Your task to perform on an android device: turn off airplane mode Image 0: 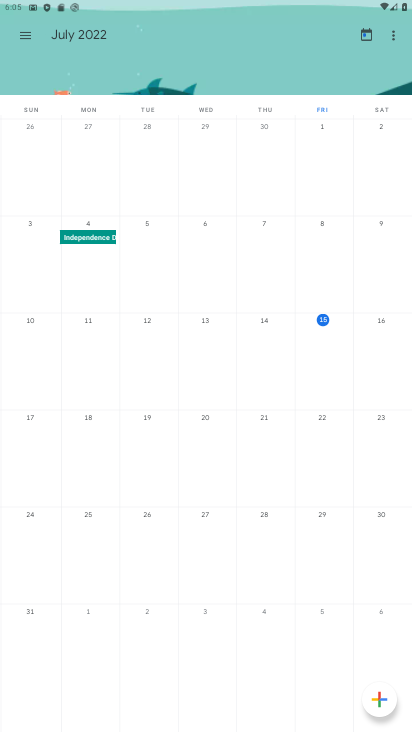
Step 0: press home button
Your task to perform on an android device: turn off airplane mode Image 1: 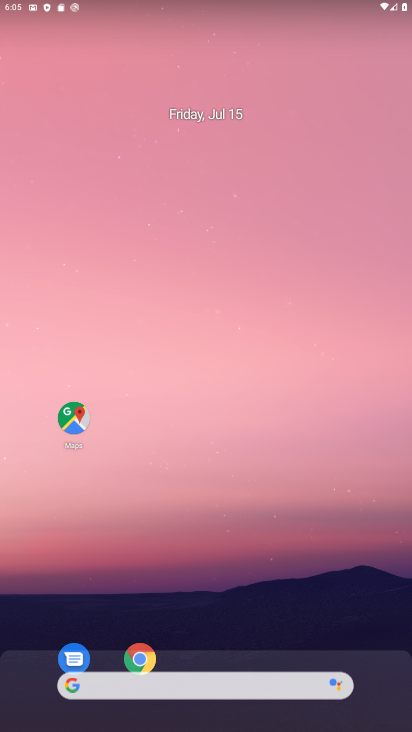
Step 1: drag from (385, 674) to (336, 227)
Your task to perform on an android device: turn off airplane mode Image 2: 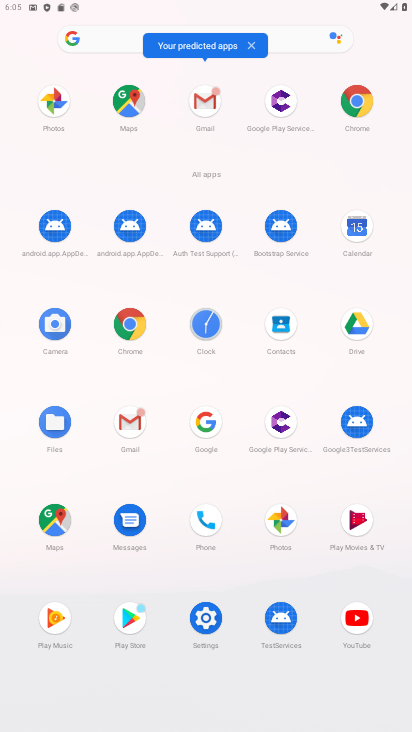
Step 2: click (206, 614)
Your task to perform on an android device: turn off airplane mode Image 3: 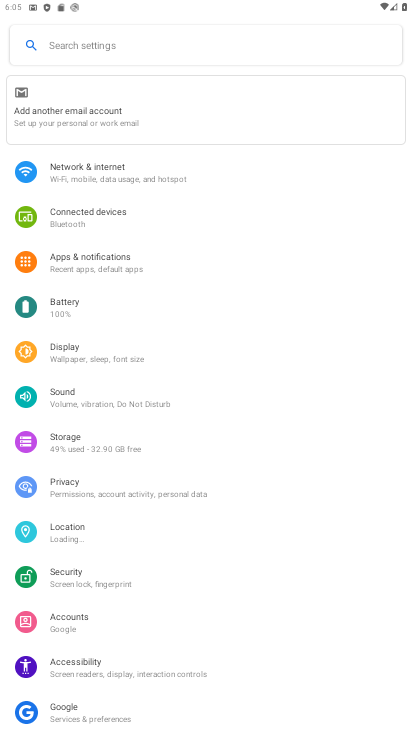
Step 3: click (86, 168)
Your task to perform on an android device: turn off airplane mode Image 4: 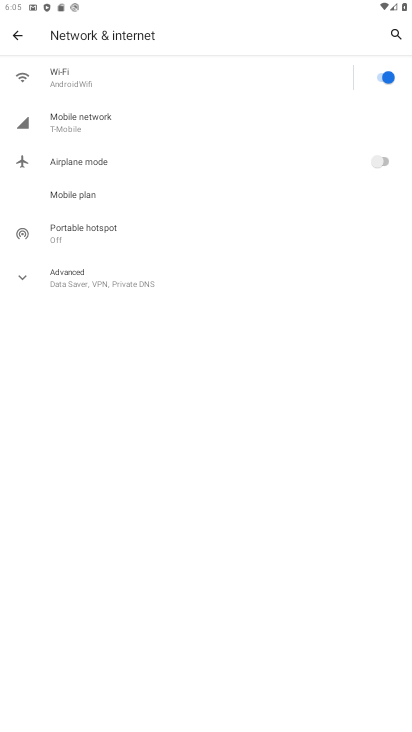
Step 4: task complete